Your task to perform on an android device: open wifi settings Image 0: 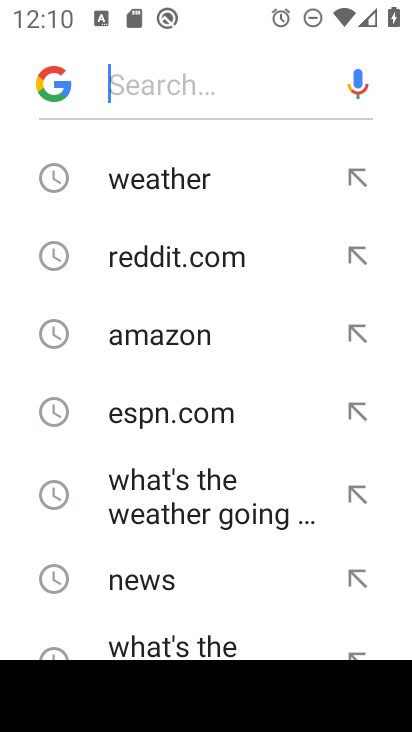
Step 0: press home button
Your task to perform on an android device: open wifi settings Image 1: 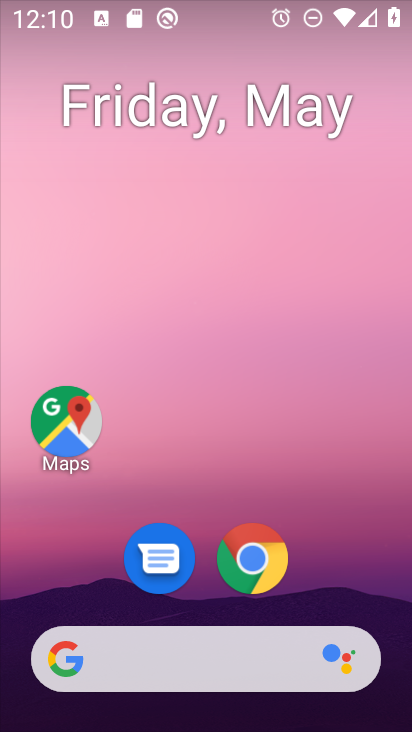
Step 1: drag from (388, 620) to (352, 102)
Your task to perform on an android device: open wifi settings Image 2: 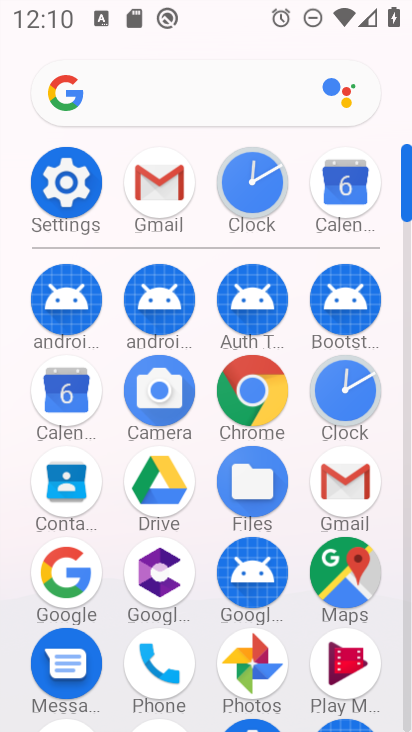
Step 2: click (405, 672)
Your task to perform on an android device: open wifi settings Image 3: 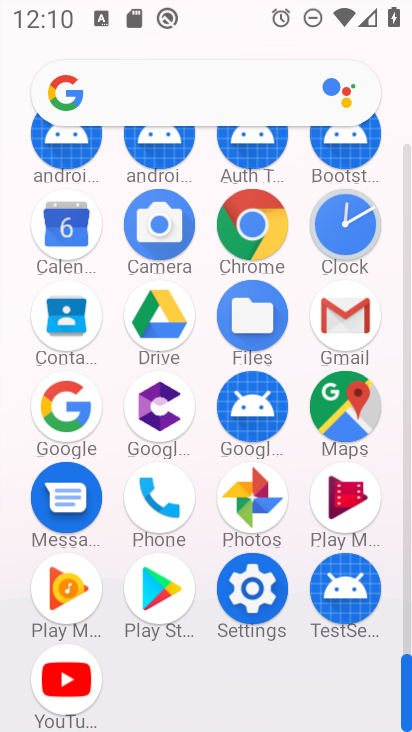
Step 3: click (248, 586)
Your task to perform on an android device: open wifi settings Image 4: 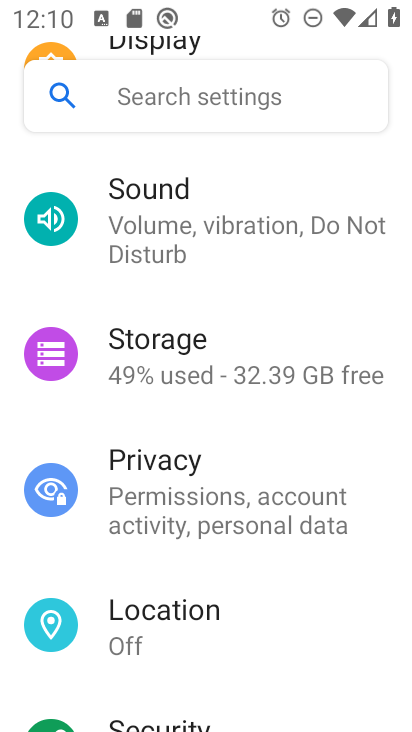
Step 4: drag from (350, 191) to (315, 527)
Your task to perform on an android device: open wifi settings Image 5: 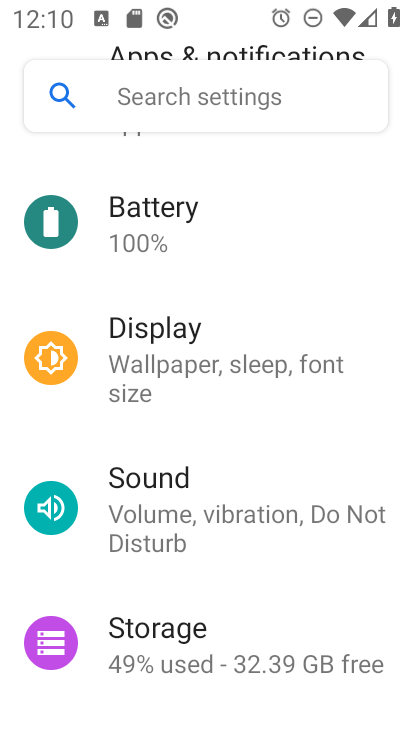
Step 5: drag from (335, 207) to (301, 544)
Your task to perform on an android device: open wifi settings Image 6: 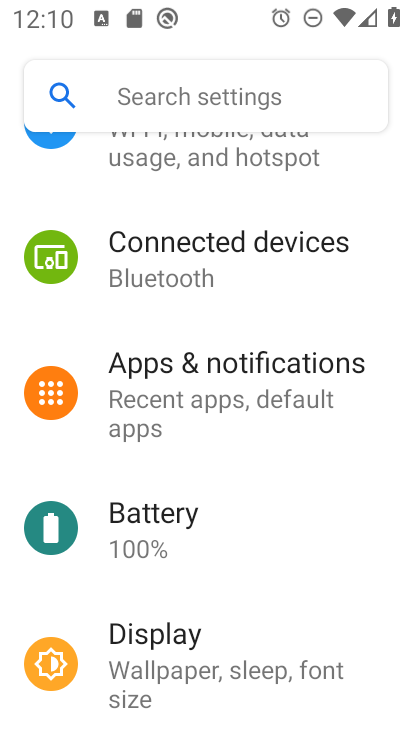
Step 6: drag from (364, 234) to (317, 563)
Your task to perform on an android device: open wifi settings Image 7: 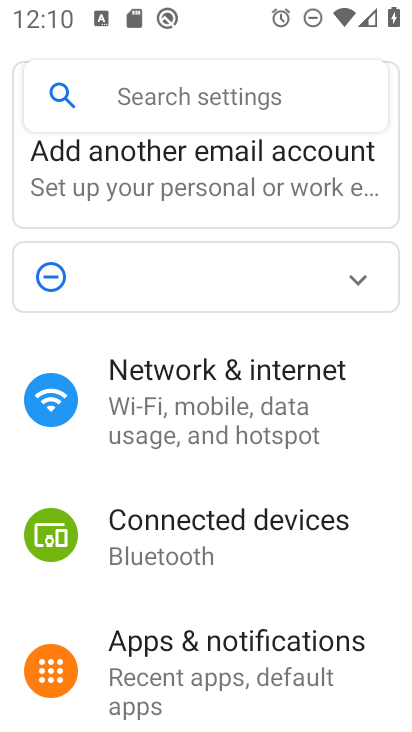
Step 7: click (162, 386)
Your task to perform on an android device: open wifi settings Image 8: 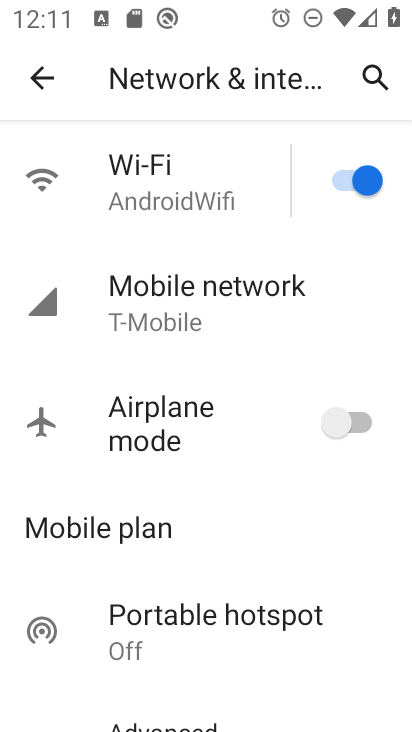
Step 8: click (131, 162)
Your task to perform on an android device: open wifi settings Image 9: 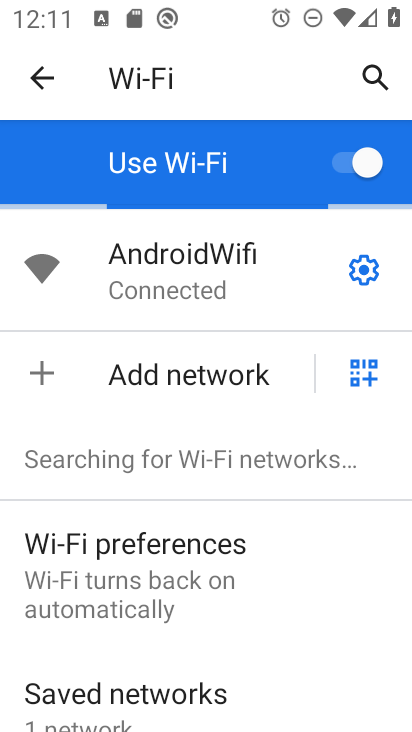
Step 9: drag from (147, 578) to (244, 194)
Your task to perform on an android device: open wifi settings Image 10: 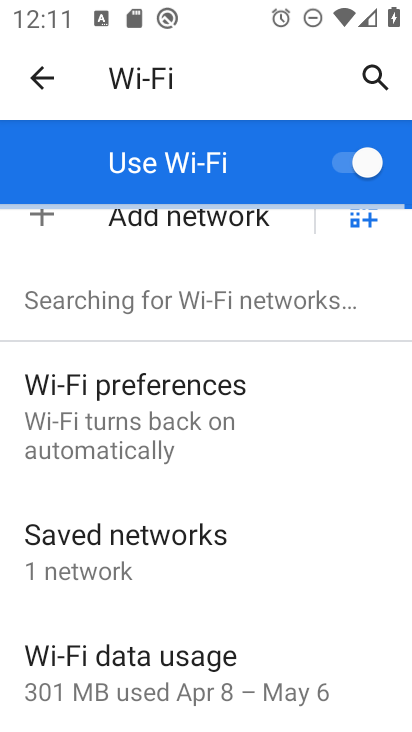
Step 10: drag from (271, 359) to (223, 621)
Your task to perform on an android device: open wifi settings Image 11: 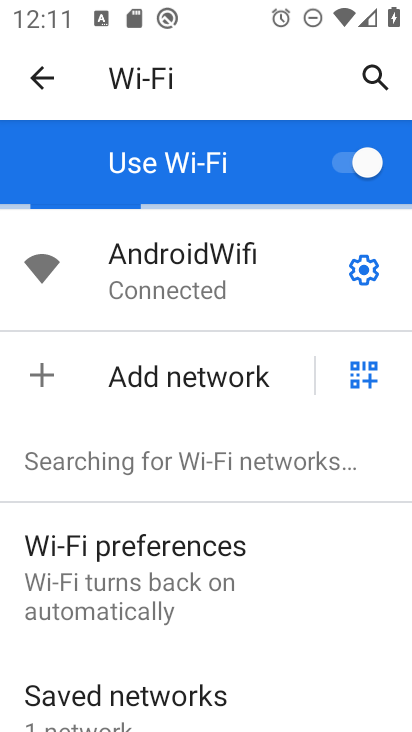
Step 11: click (364, 267)
Your task to perform on an android device: open wifi settings Image 12: 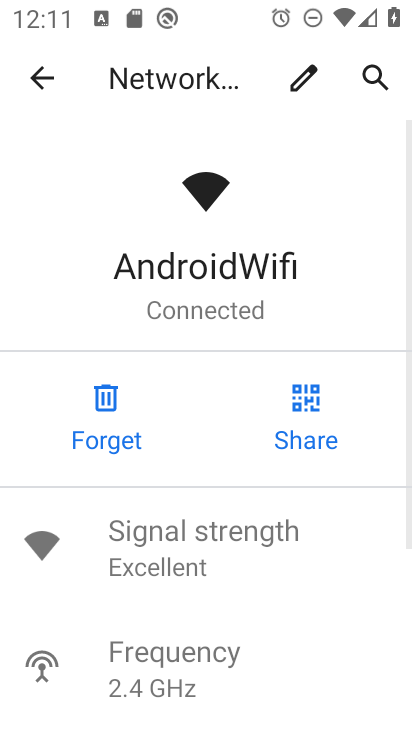
Step 12: drag from (204, 625) to (263, 121)
Your task to perform on an android device: open wifi settings Image 13: 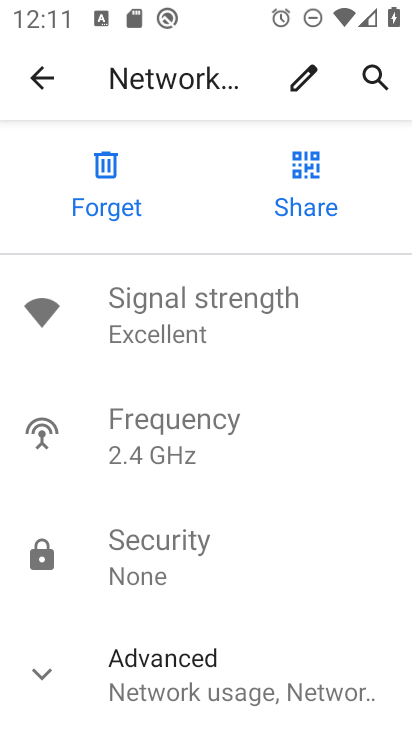
Step 13: click (39, 679)
Your task to perform on an android device: open wifi settings Image 14: 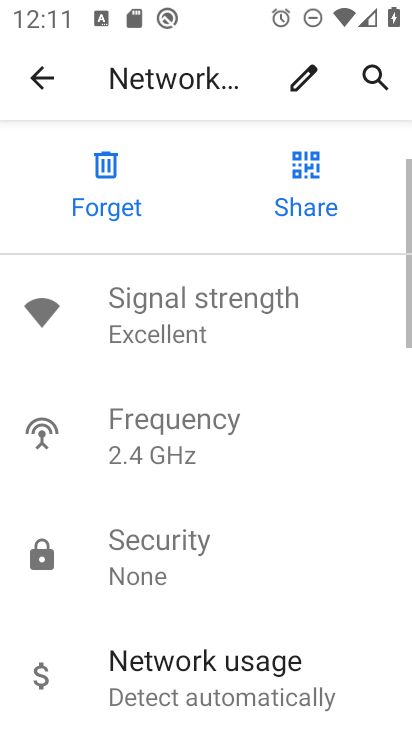
Step 14: task complete